Your task to perform on an android device: find which apps use the phone's location Image 0: 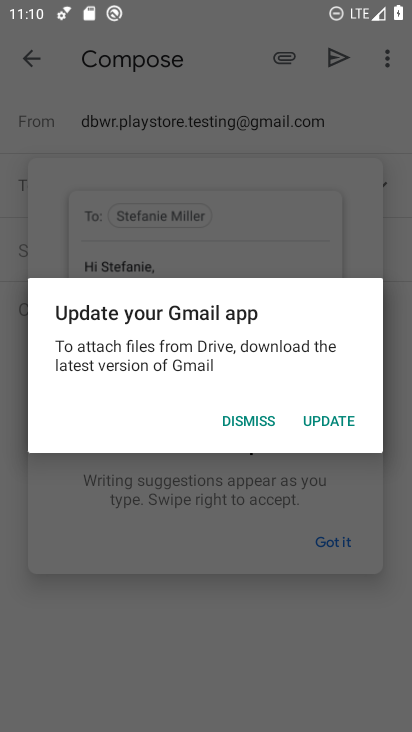
Step 0: press home button
Your task to perform on an android device: find which apps use the phone's location Image 1: 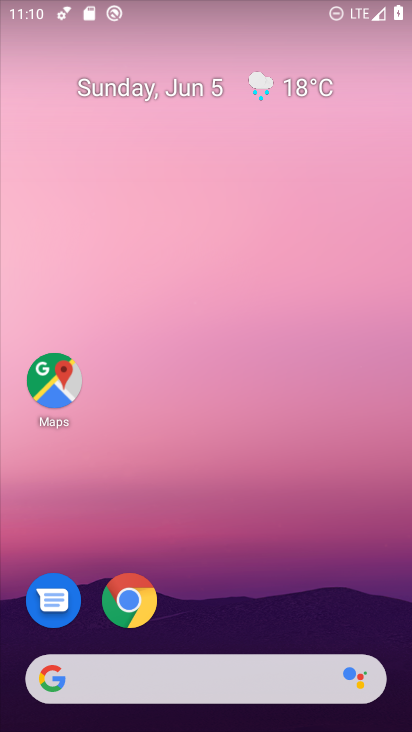
Step 1: drag from (224, 598) to (226, 164)
Your task to perform on an android device: find which apps use the phone's location Image 2: 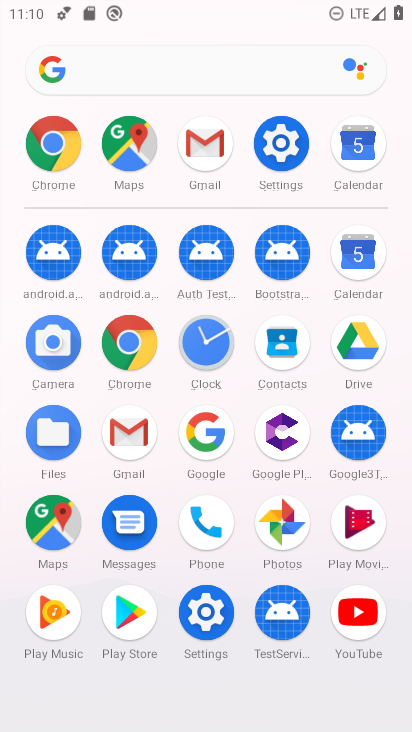
Step 2: click (278, 148)
Your task to perform on an android device: find which apps use the phone's location Image 3: 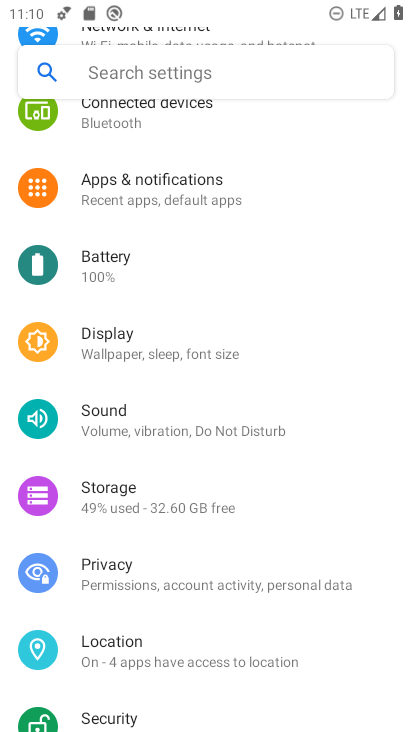
Step 3: click (174, 645)
Your task to perform on an android device: find which apps use the phone's location Image 4: 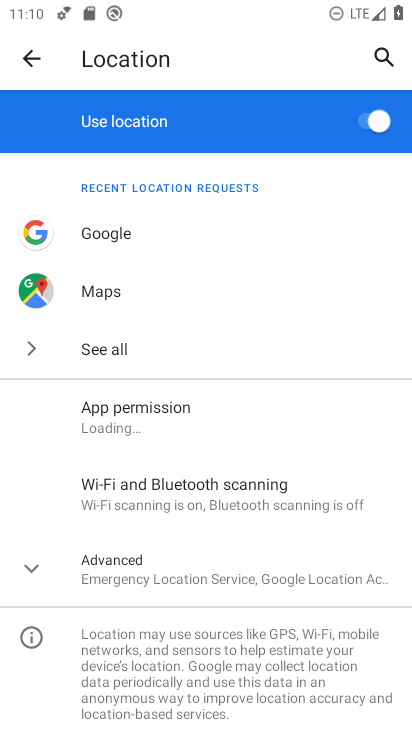
Step 4: click (175, 414)
Your task to perform on an android device: find which apps use the phone's location Image 5: 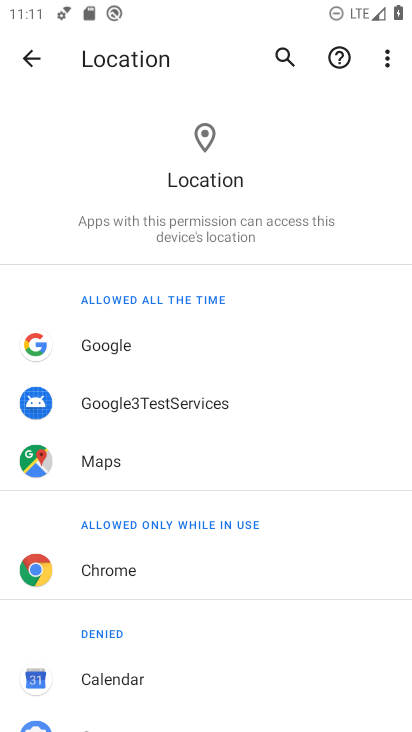
Step 5: task complete